Your task to perform on an android device: toggle javascript in the chrome app Image 0: 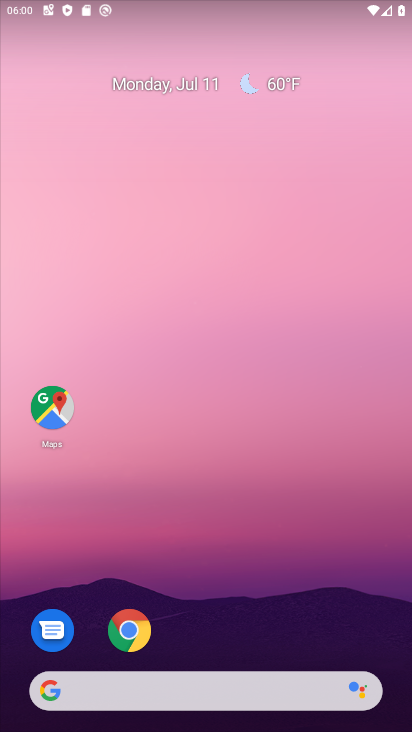
Step 0: click (133, 622)
Your task to perform on an android device: toggle javascript in the chrome app Image 1: 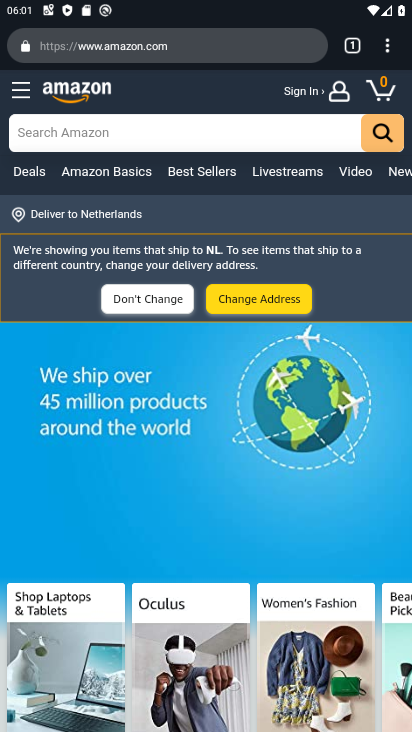
Step 1: click (389, 49)
Your task to perform on an android device: toggle javascript in the chrome app Image 2: 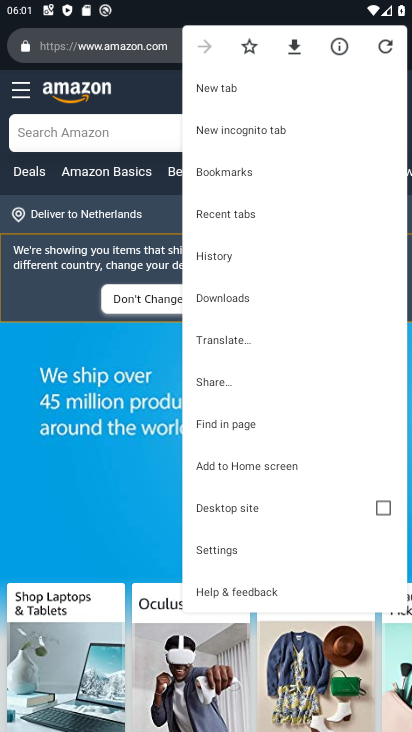
Step 2: click (206, 556)
Your task to perform on an android device: toggle javascript in the chrome app Image 3: 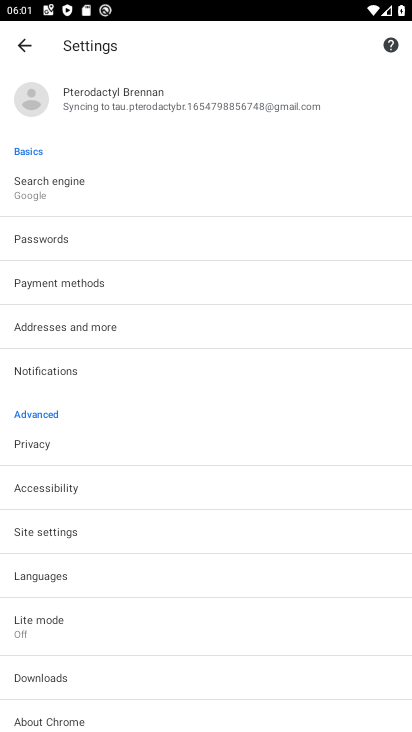
Step 3: click (62, 529)
Your task to perform on an android device: toggle javascript in the chrome app Image 4: 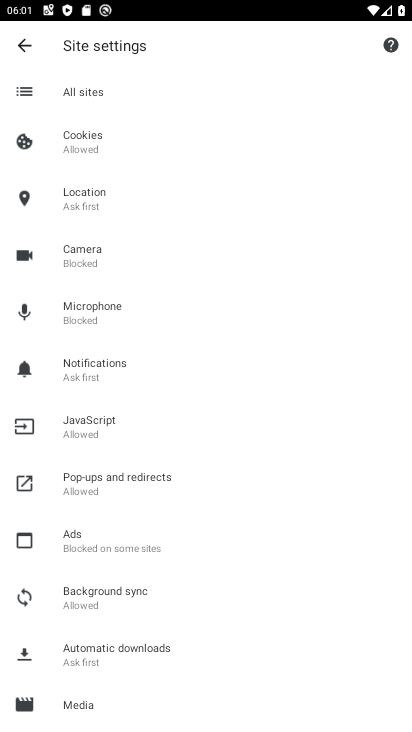
Step 4: click (86, 423)
Your task to perform on an android device: toggle javascript in the chrome app Image 5: 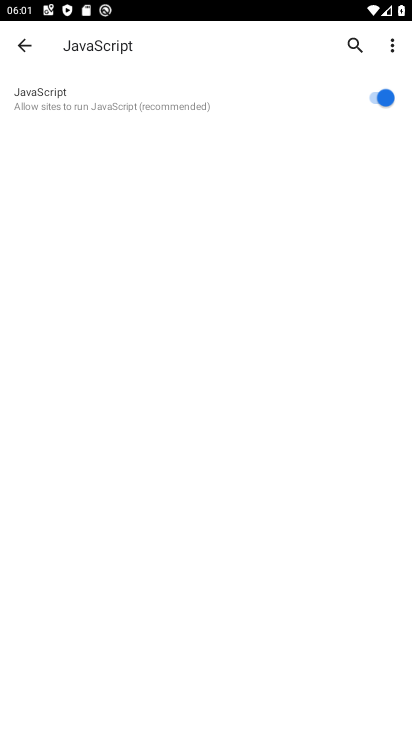
Step 5: click (366, 96)
Your task to perform on an android device: toggle javascript in the chrome app Image 6: 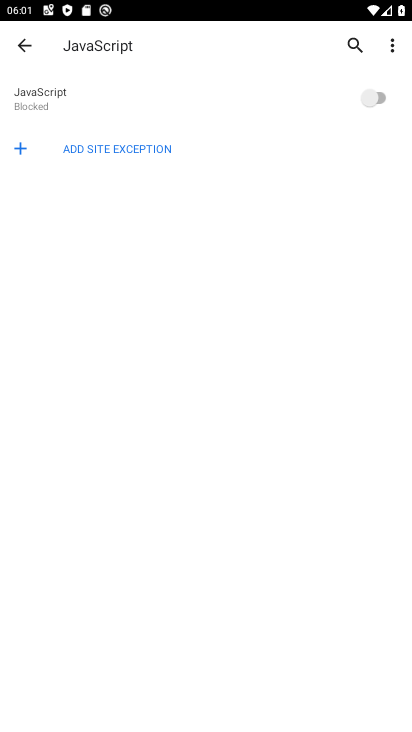
Step 6: task complete